Your task to perform on an android device: Toggle the flashlight Image 0: 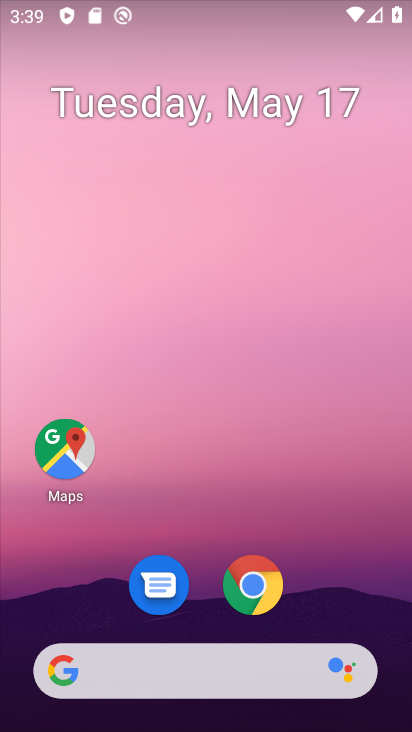
Step 0: drag from (344, 525) to (258, 130)
Your task to perform on an android device: Toggle the flashlight Image 1: 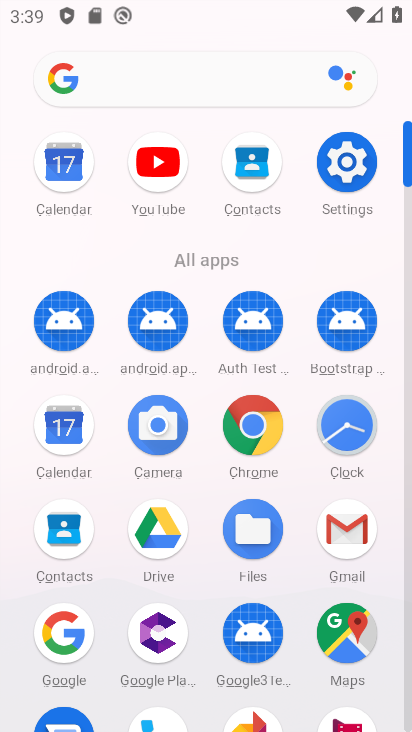
Step 1: click (341, 167)
Your task to perform on an android device: Toggle the flashlight Image 2: 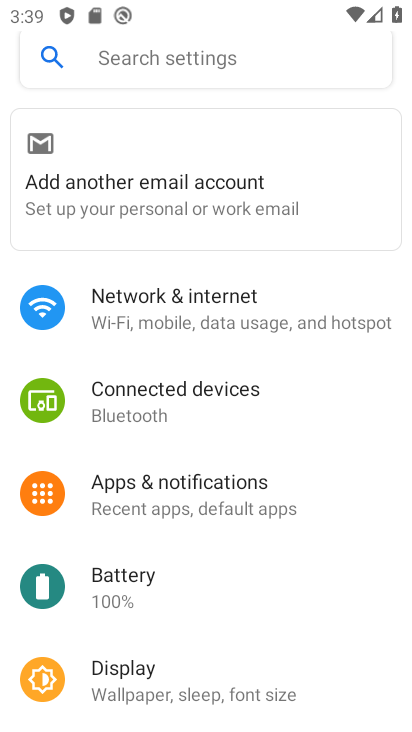
Step 2: click (234, 46)
Your task to perform on an android device: Toggle the flashlight Image 3: 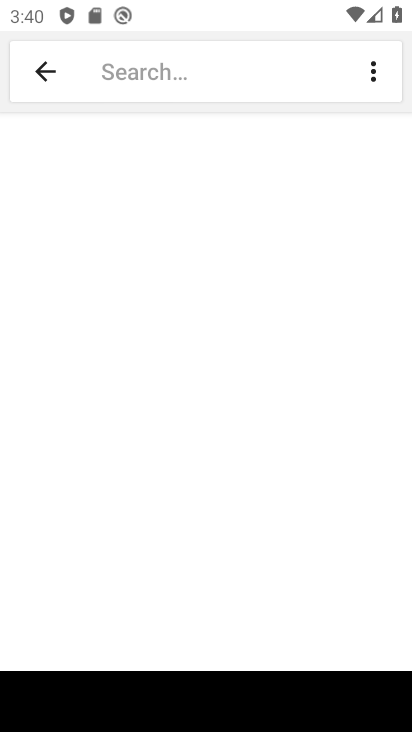
Step 3: type "Flashlight"
Your task to perform on an android device: Toggle the flashlight Image 4: 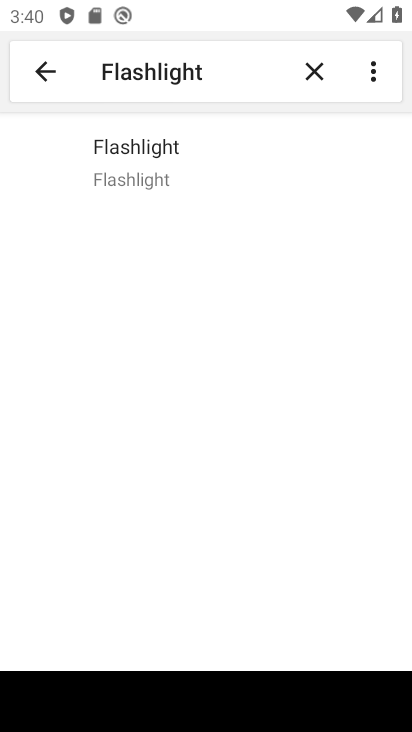
Step 4: click (128, 139)
Your task to perform on an android device: Toggle the flashlight Image 5: 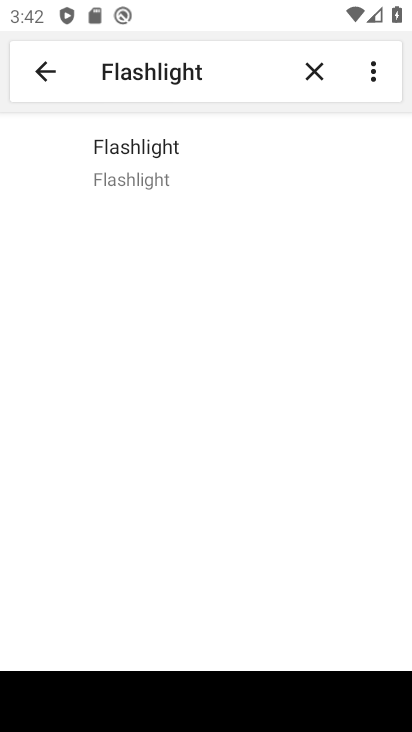
Step 5: task complete